Your task to perform on an android device: Open settings Image 0: 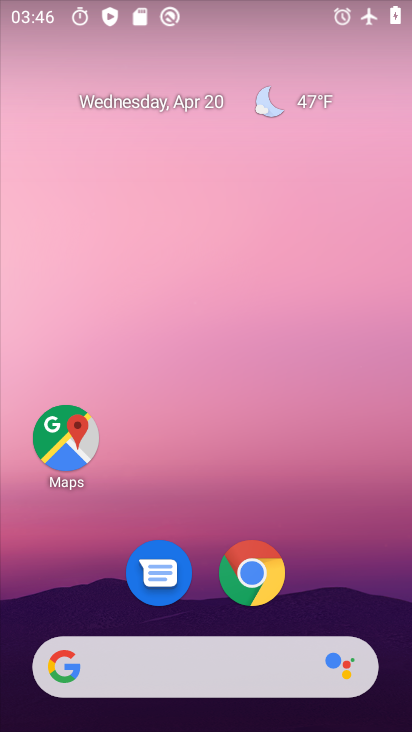
Step 0: drag from (197, 727) to (182, 82)
Your task to perform on an android device: Open settings Image 1: 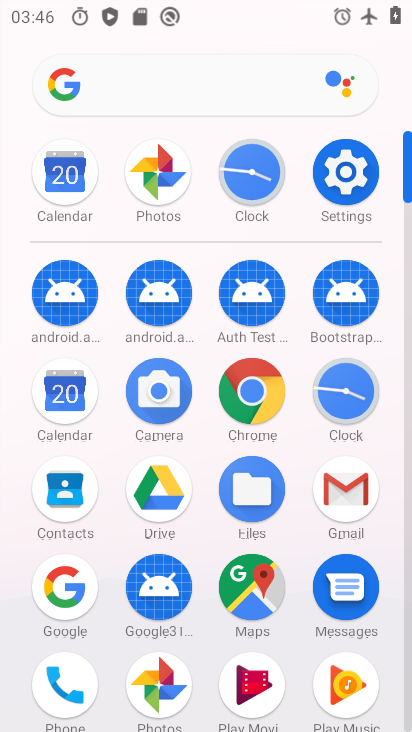
Step 1: click (348, 169)
Your task to perform on an android device: Open settings Image 2: 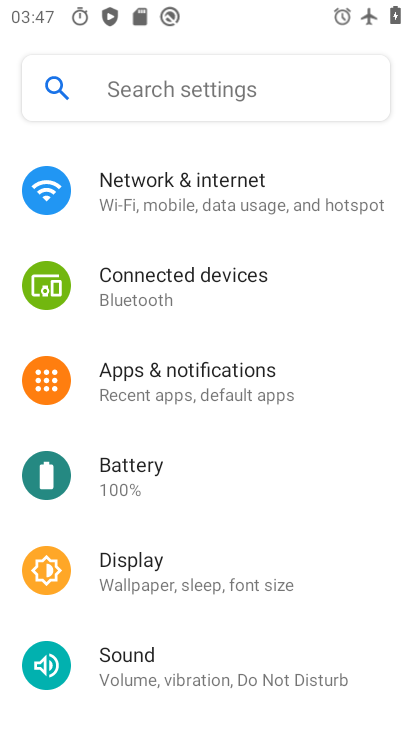
Step 2: task complete